Your task to perform on an android device: Search for Italian restaurants on Maps Image 0: 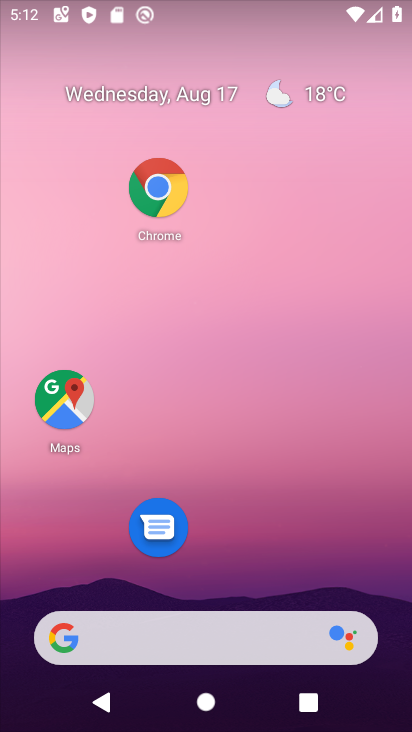
Step 0: click (52, 384)
Your task to perform on an android device: Search for Italian restaurants on Maps Image 1: 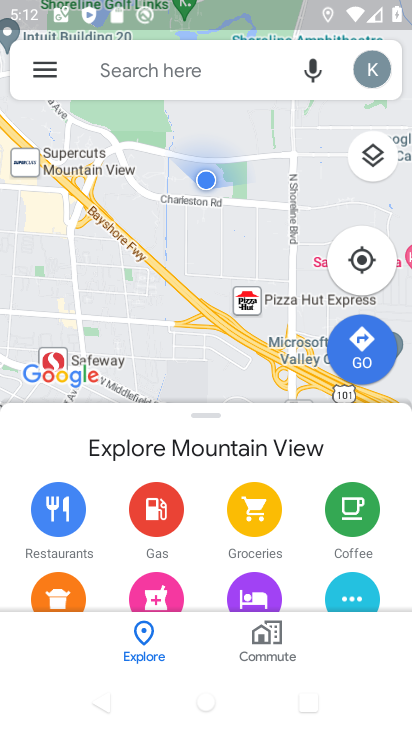
Step 1: click (181, 62)
Your task to perform on an android device: Search for Italian restaurants on Maps Image 2: 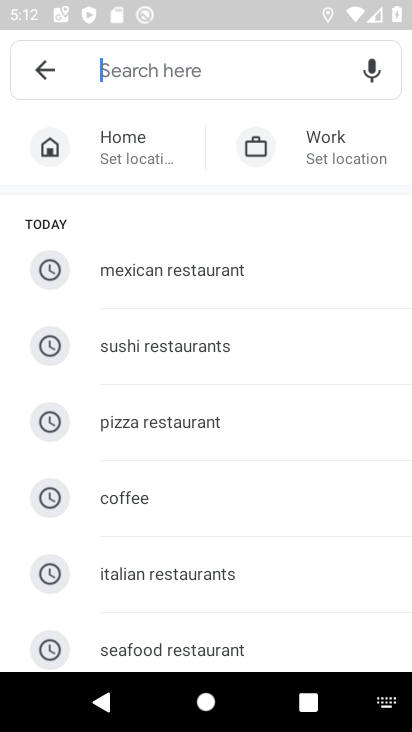
Step 2: click (177, 576)
Your task to perform on an android device: Search for Italian restaurants on Maps Image 3: 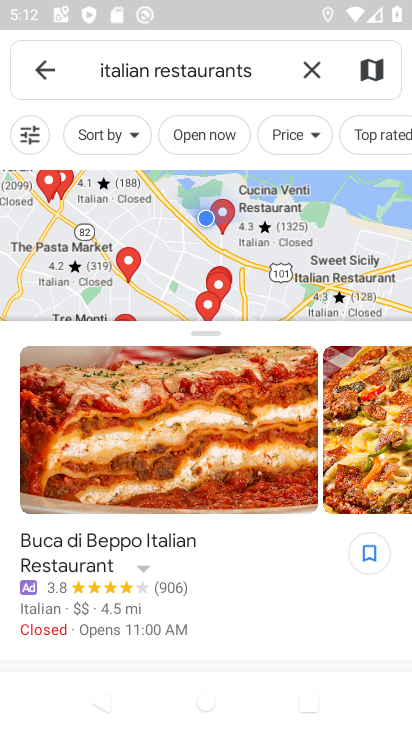
Step 3: task complete